Your task to perform on an android device: Show me recent news Image 0: 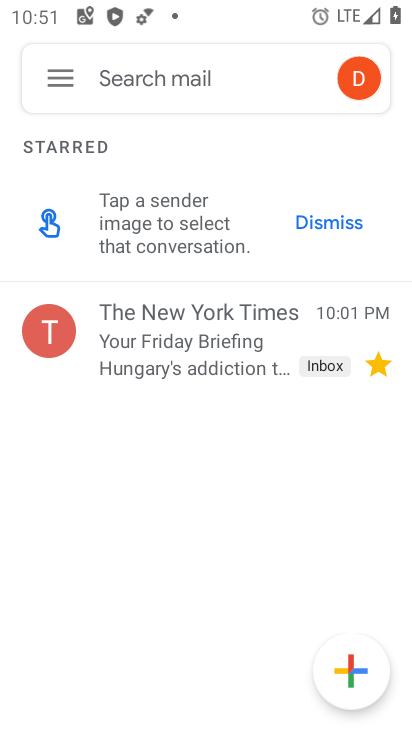
Step 0: press home button
Your task to perform on an android device: Show me recent news Image 1: 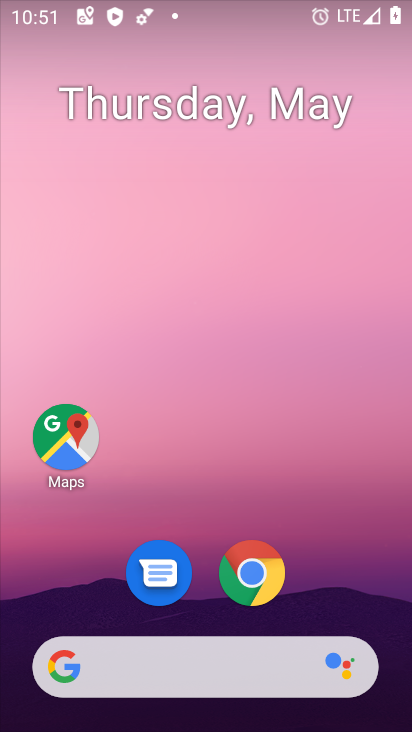
Step 1: drag from (200, 628) to (209, 255)
Your task to perform on an android device: Show me recent news Image 2: 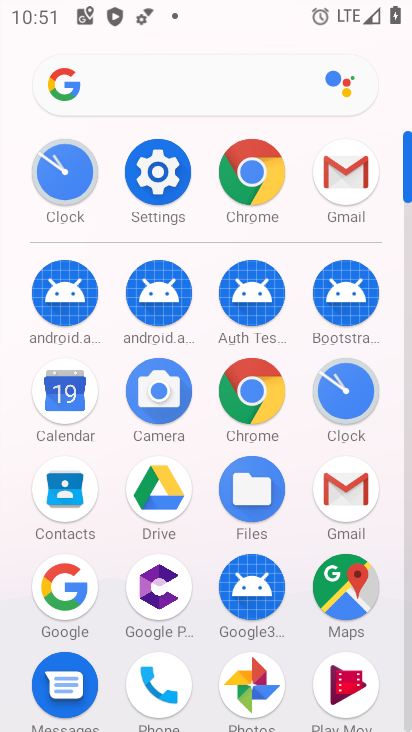
Step 2: click (81, 583)
Your task to perform on an android device: Show me recent news Image 3: 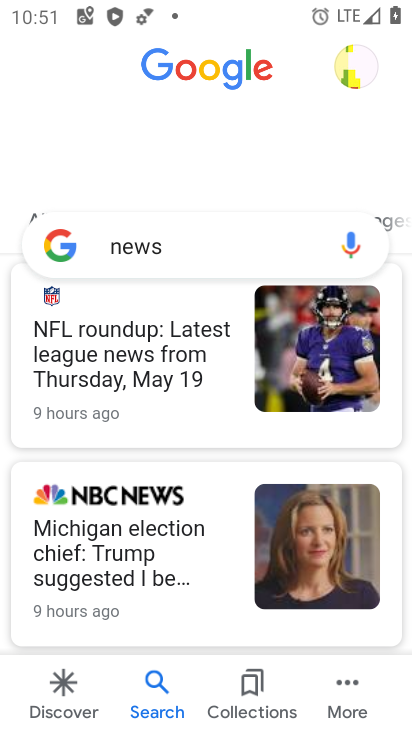
Step 3: click (203, 261)
Your task to perform on an android device: Show me recent news Image 4: 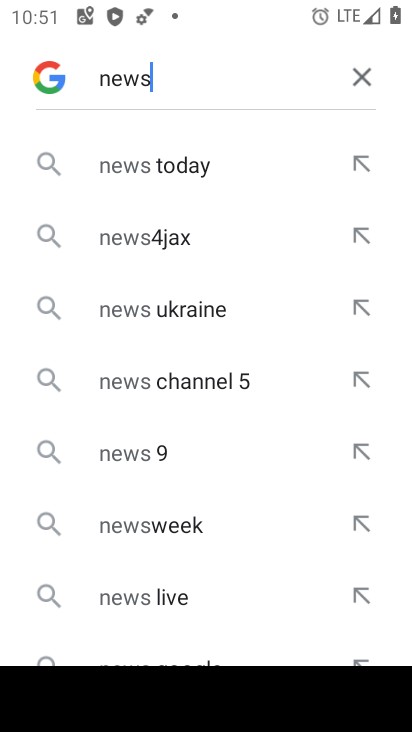
Step 4: click (159, 172)
Your task to perform on an android device: Show me recent news Image 5: 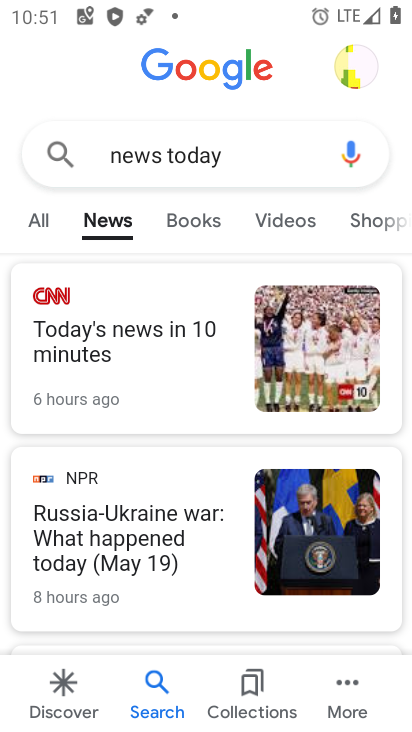
Step 5: task complete